Your task to perform on an android device: change your default location settings in chrome Image 0: 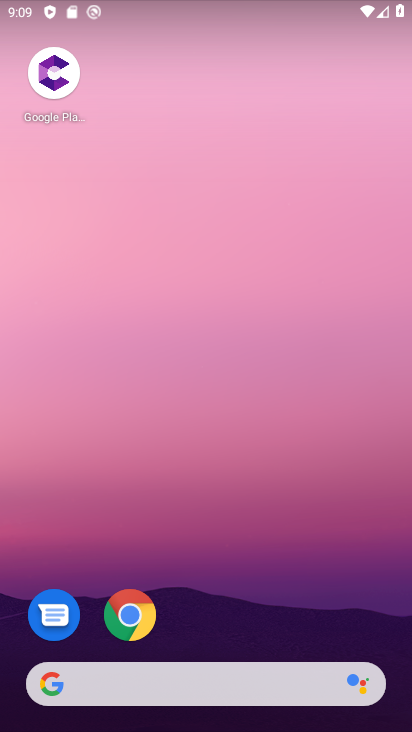
Step 0: click (127, 613)
Your task to perform on an android device: change your default location settings in chrome Image 1: 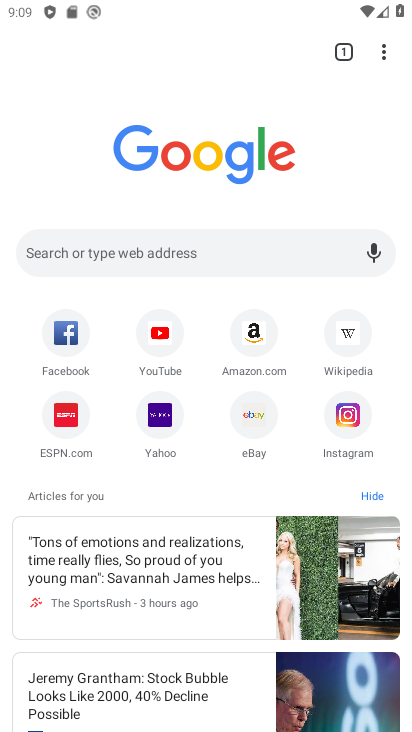
Step 1: click (377, 53)
Your task to perform on an android device: change your default location settings in chrome Image 2: 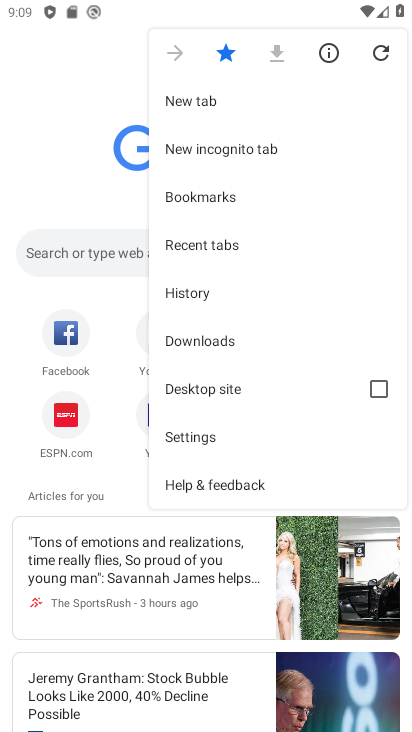
Step 2: click (210, 431)
Your task to perform on an android device: change your default location settings in chrome Image 3: 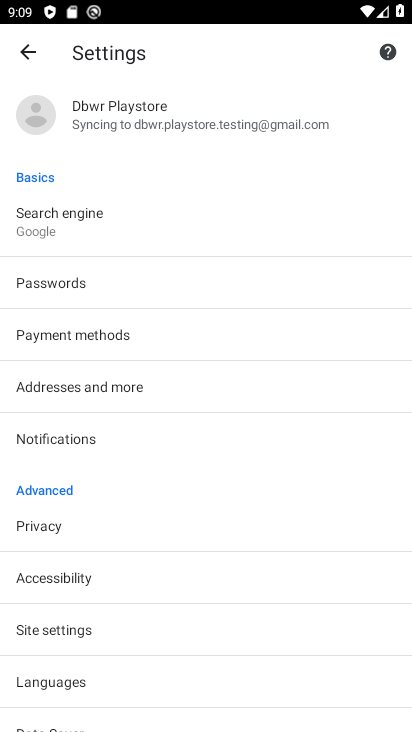
Step 3: click (74, 629)
Your task to perform on an android device: change your default location settings in chrome Image 4: 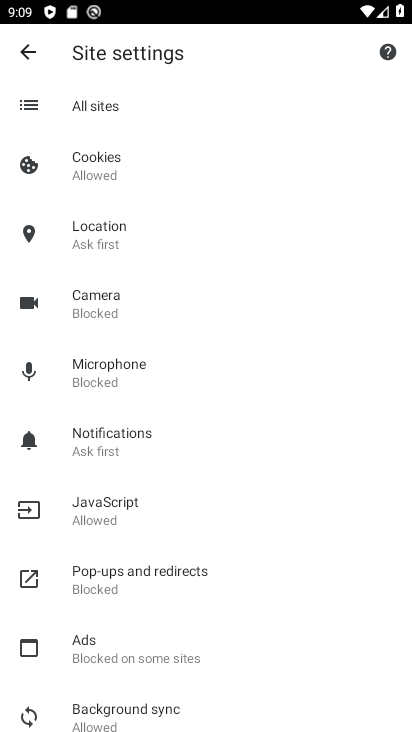
Step 4: click (143, 234)
Your task to perform on an android device: change your default location settings in chrome Image 5: 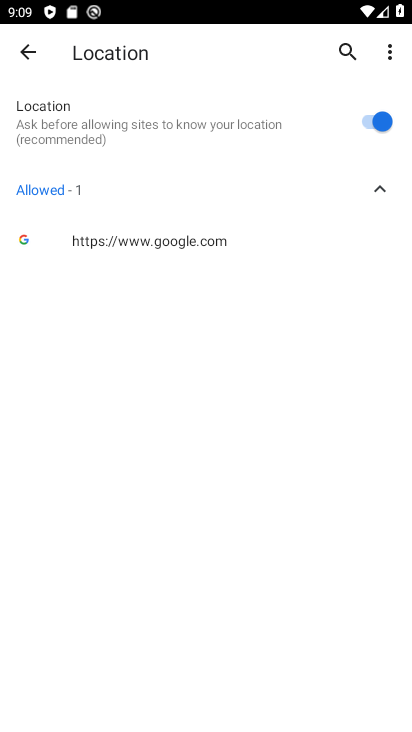
Step 5: click (376, 123)
Your task to perform on an android device: change your default location settings in chrome Image 6: 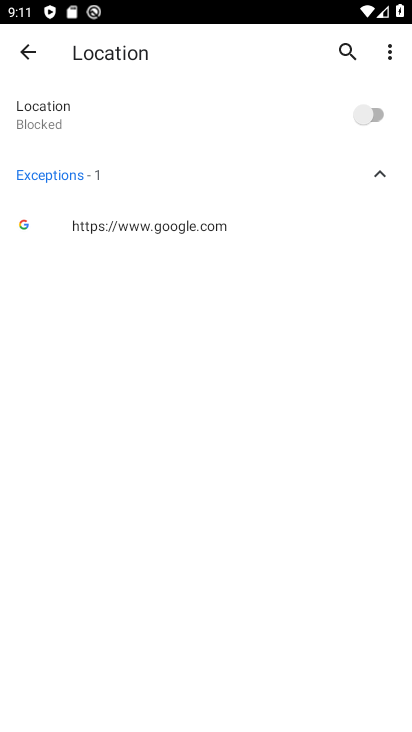
Step 6: task complete